Your task to perform on an android device: What's on my calendar today? Image 0: 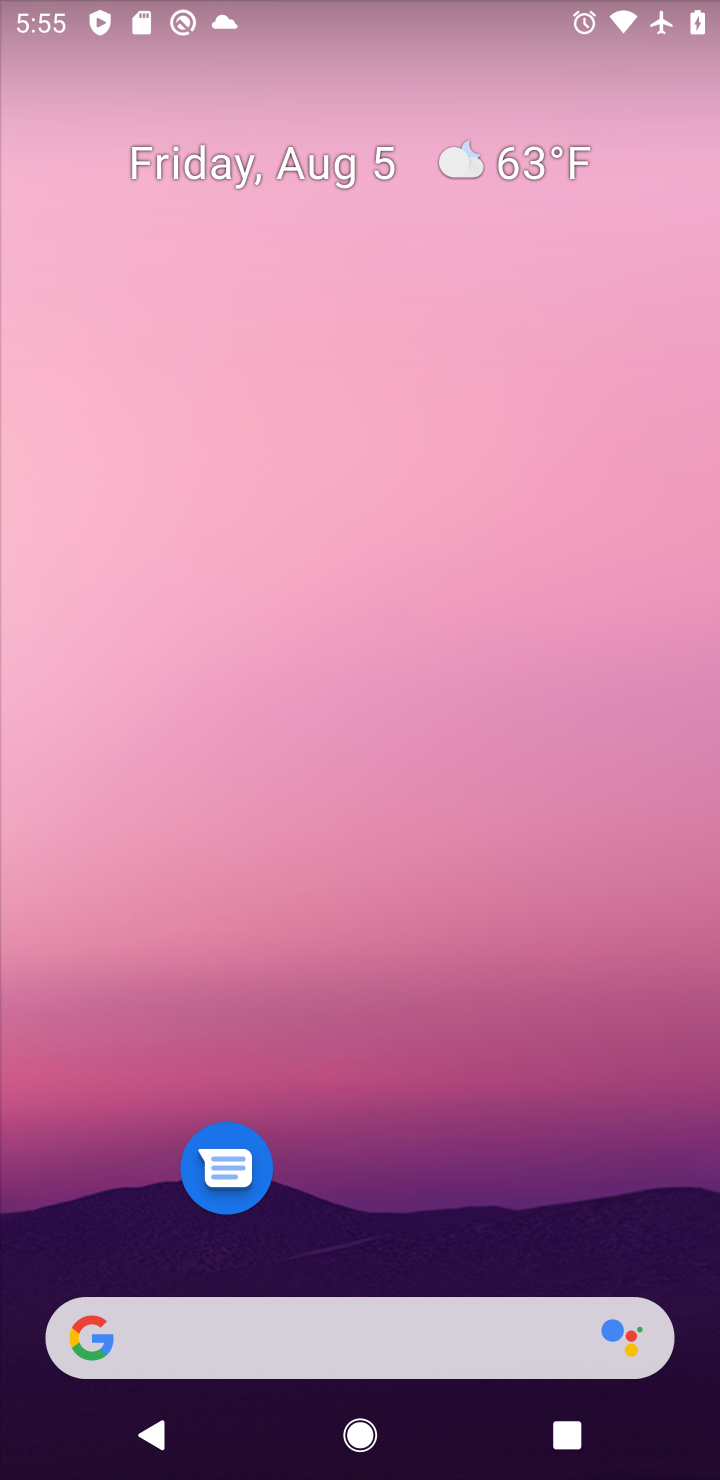
Step 0: drag from (346, 1269) to (391, 258)
Your task to perform on an android device: What's on my calendar today? Image 1: 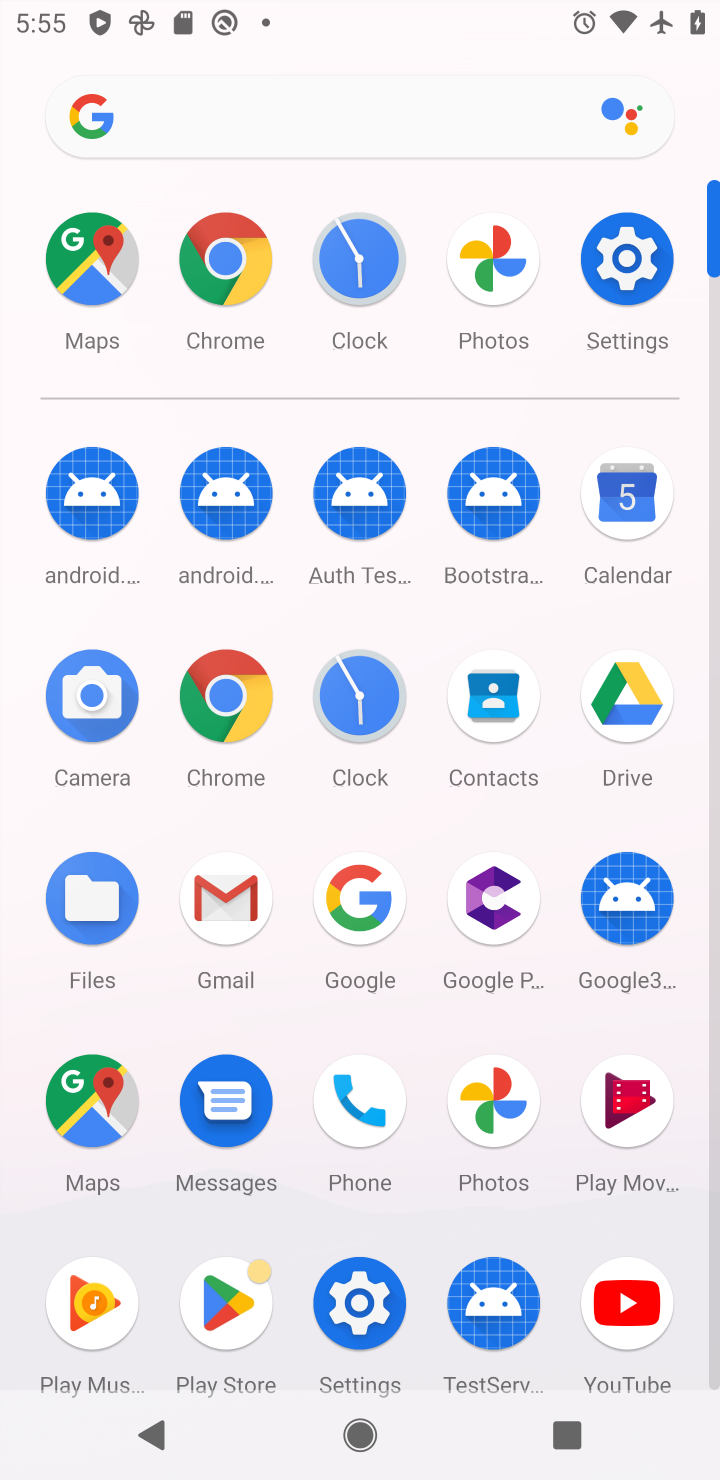
Step 1: click (644, 494)
Your task to perform on an android device: What's on my calendar today? Image 2: 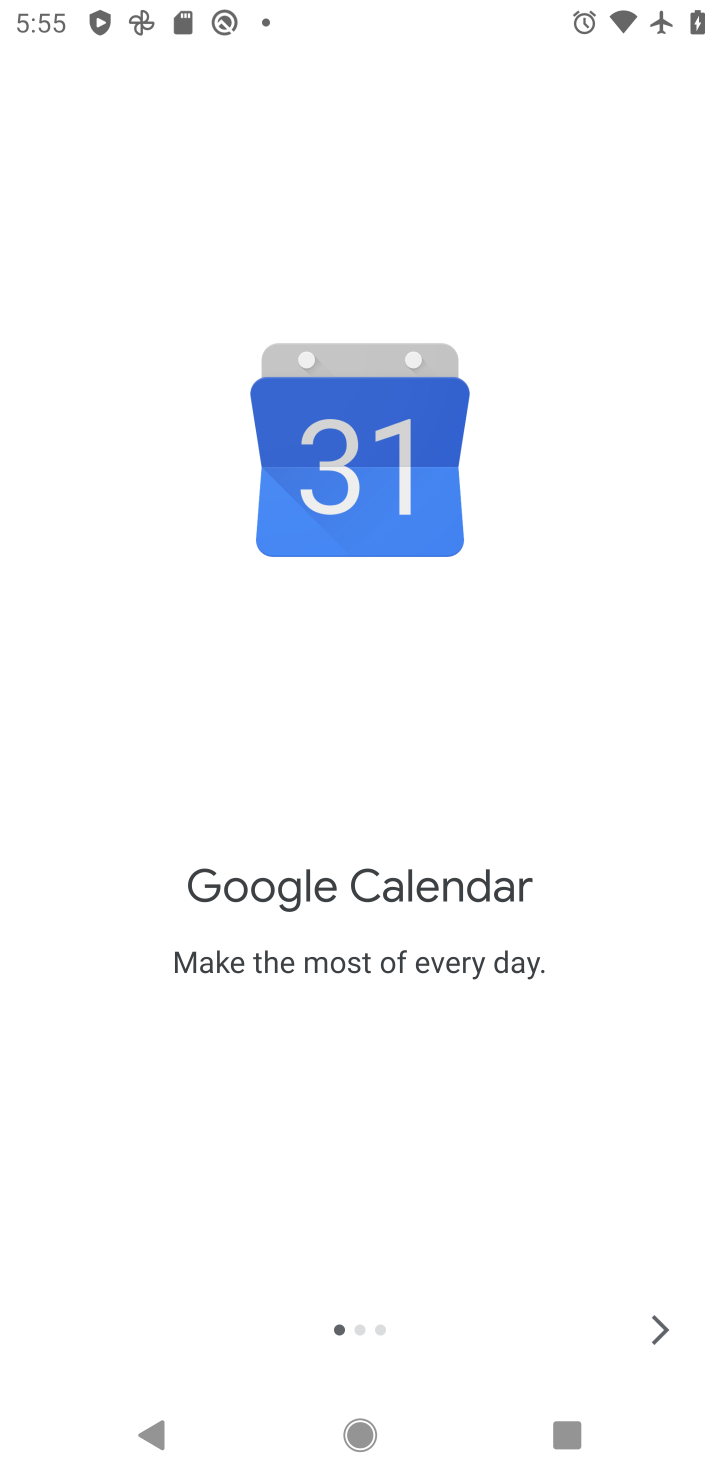
Step 2: click (668, 1330)
Your task to perform on an android device: What's on my calendar today? Image 3: 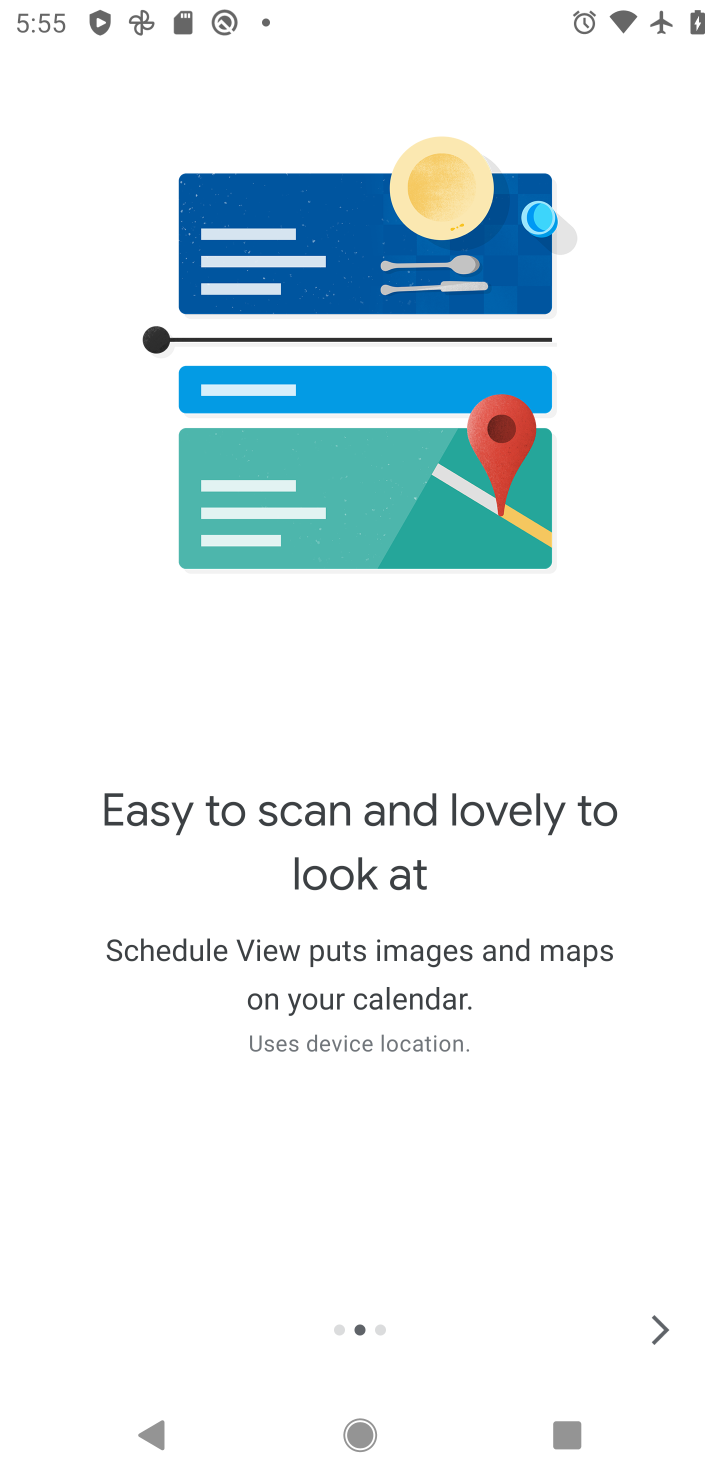
Step 3: click (668, 1330)
Your task to perform on an android device: What's on my calendar today? Image 4: 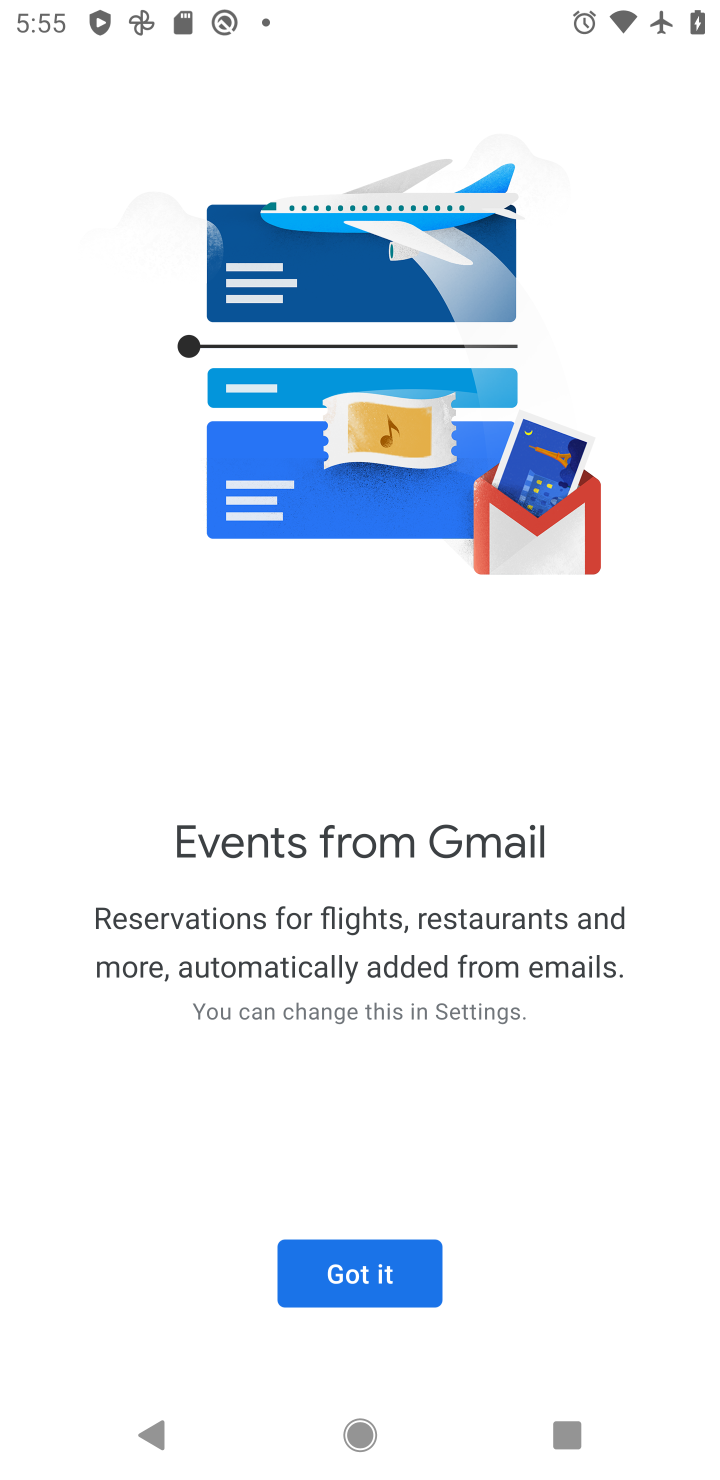
Step 4: click (408, 1283)
Your task to perform on an android device: What's on my calendar today? Image 5: 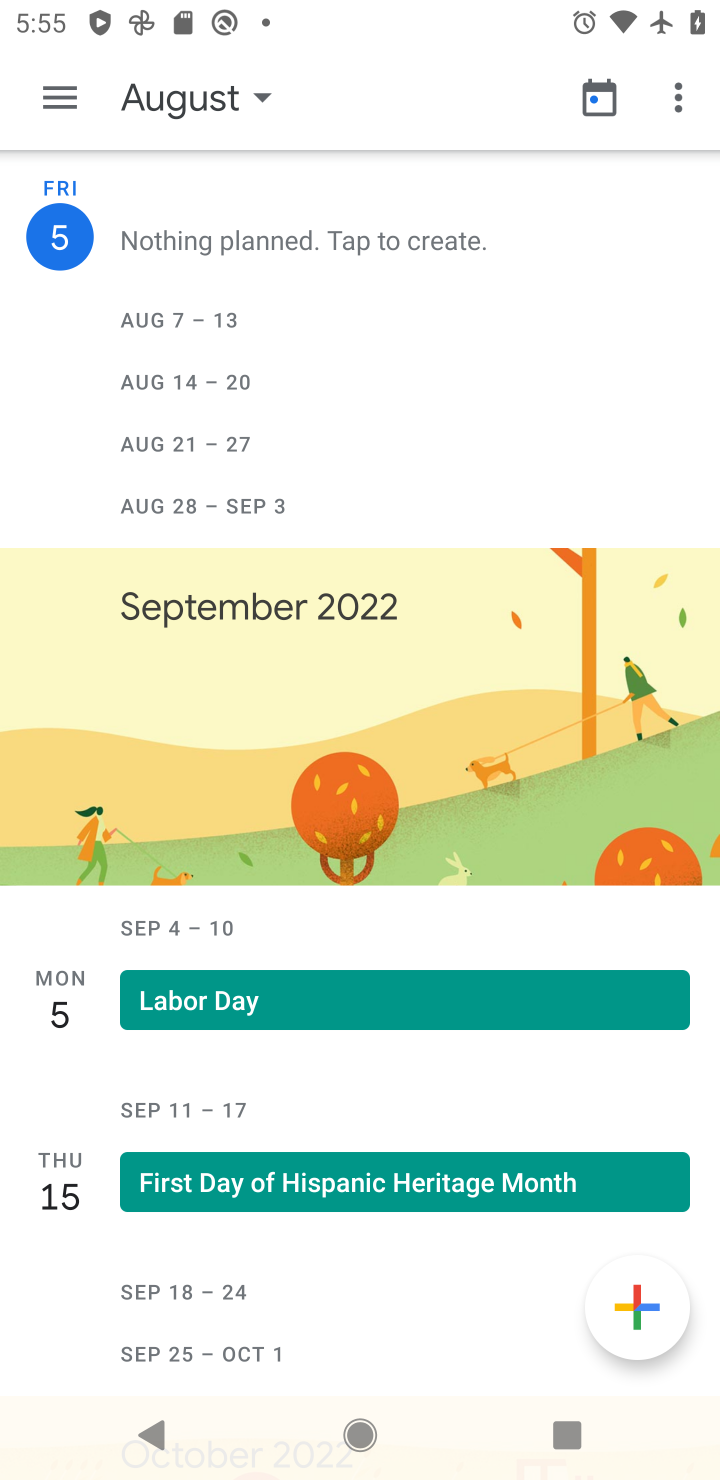
Step 5: click (257, 105)
Your task to perform on an android device: What's on my calendar today? Image 6: 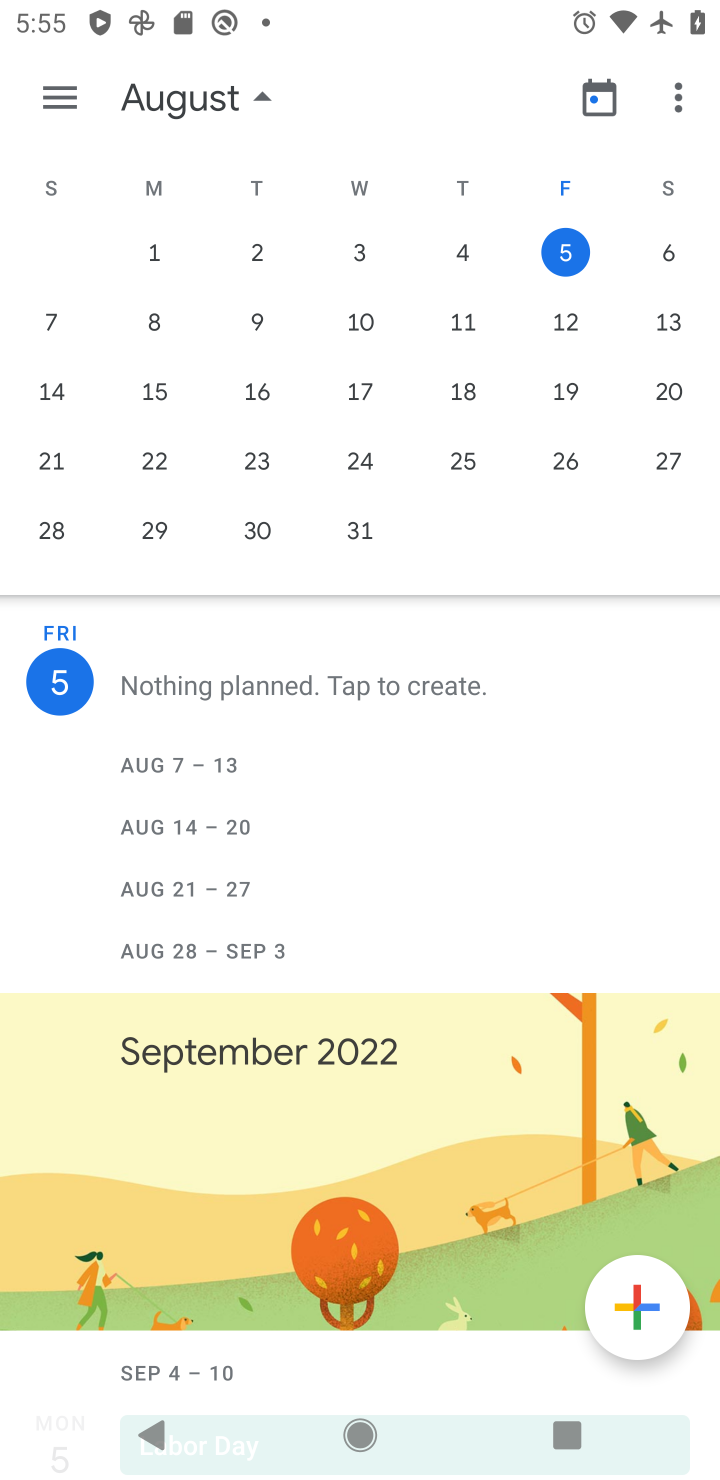
Step 6: click (566, 259)
Your task to perform on an android device: What's on my calendar today? Image 7: 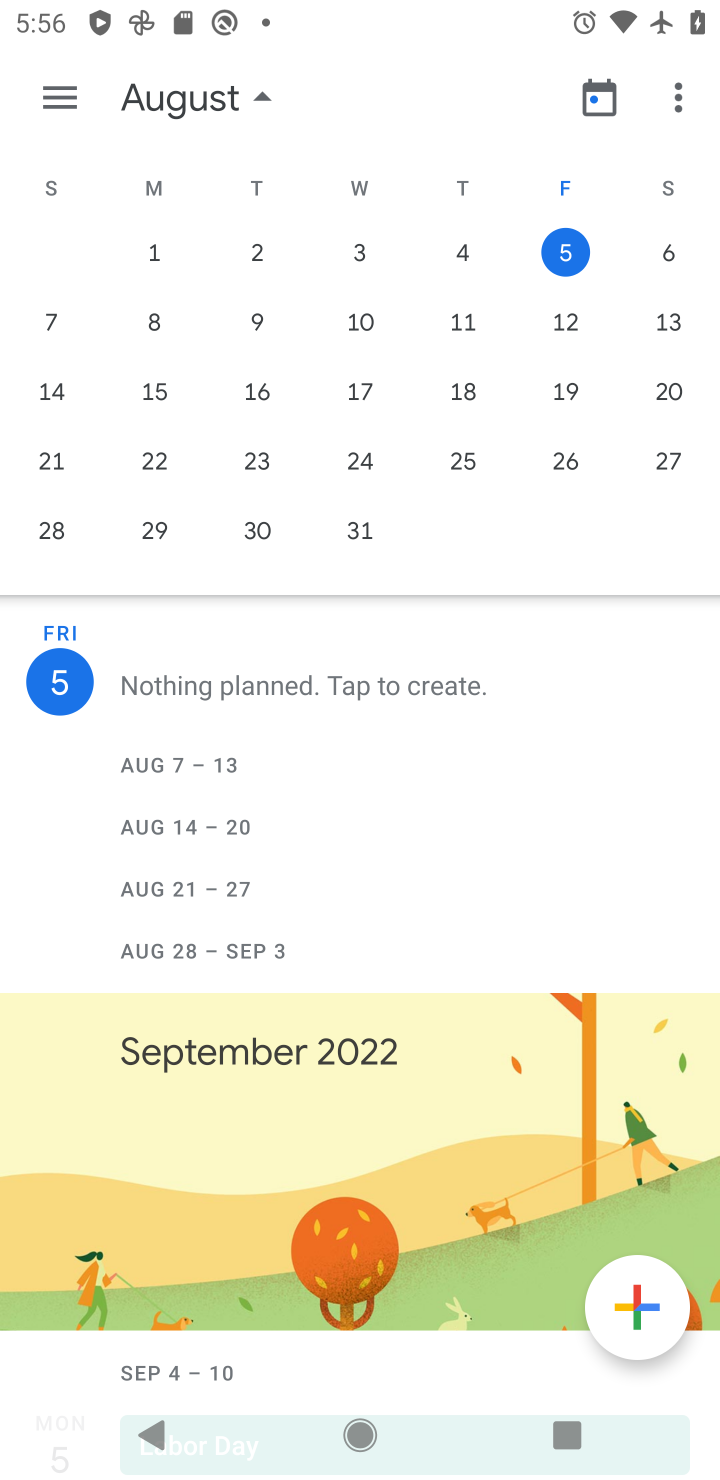
Step 7: task complete